Your task to perform on an android device: install app "Microsoft Outlook" Image 0: 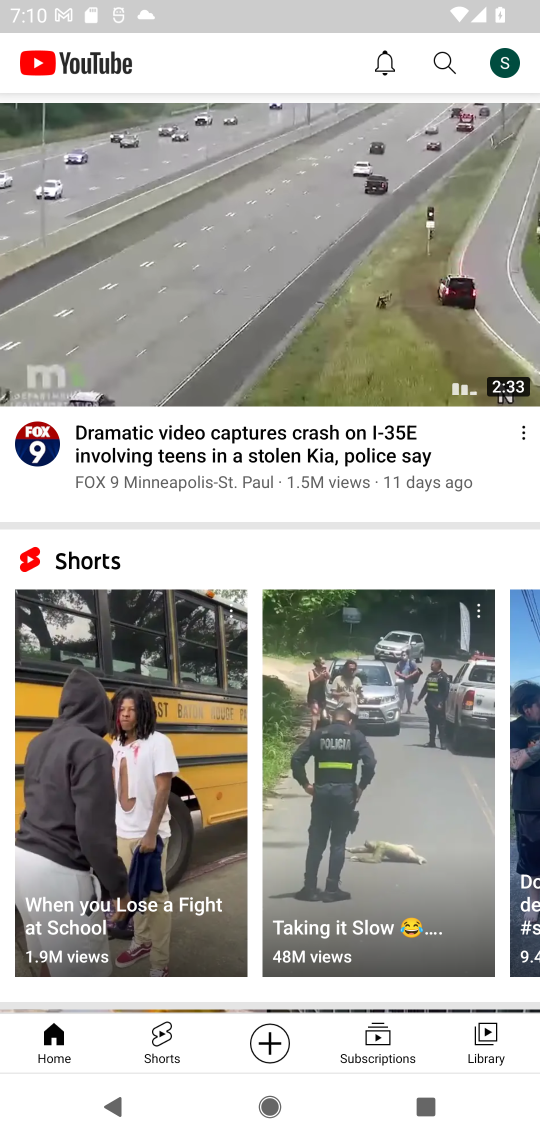
Step 0: press home button
Your task to perform on an android device: install app "Microsoft Outlook" Image 1: 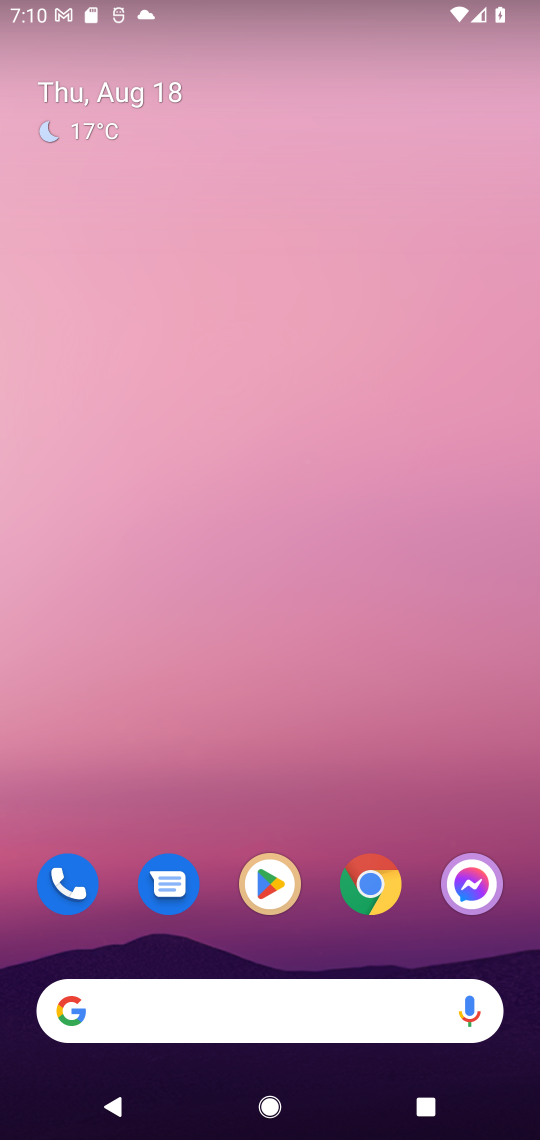
Step 1: drag from (236, 1013) to (387, 34)
Your task to perform on an android device: install app "Microsoft Outlook" Image 2: 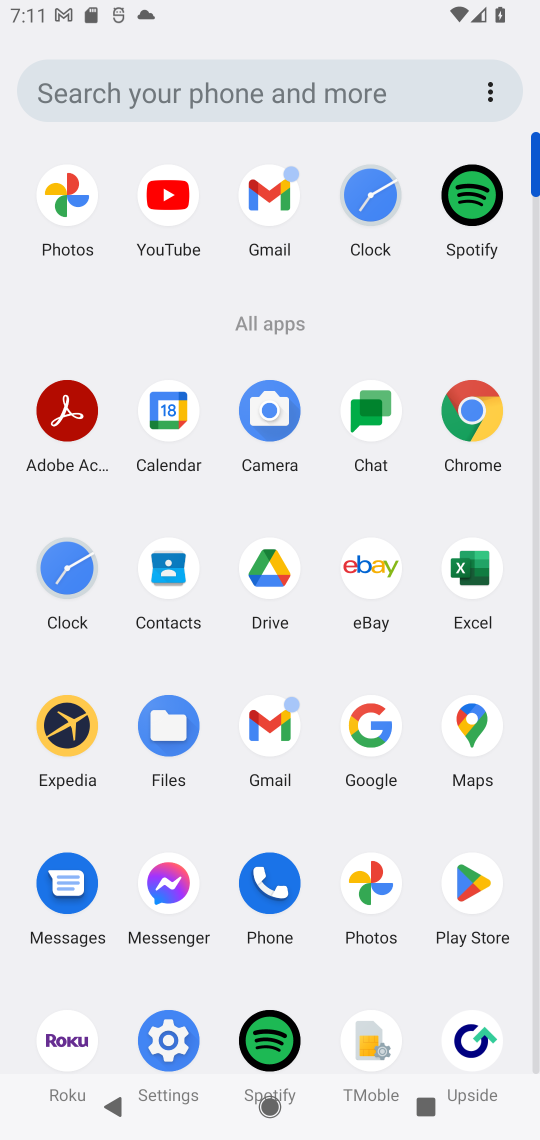
Step 2: click (478, 883)
Your task to perform on an android device: install app "Microsoft Outlook" Image 3: 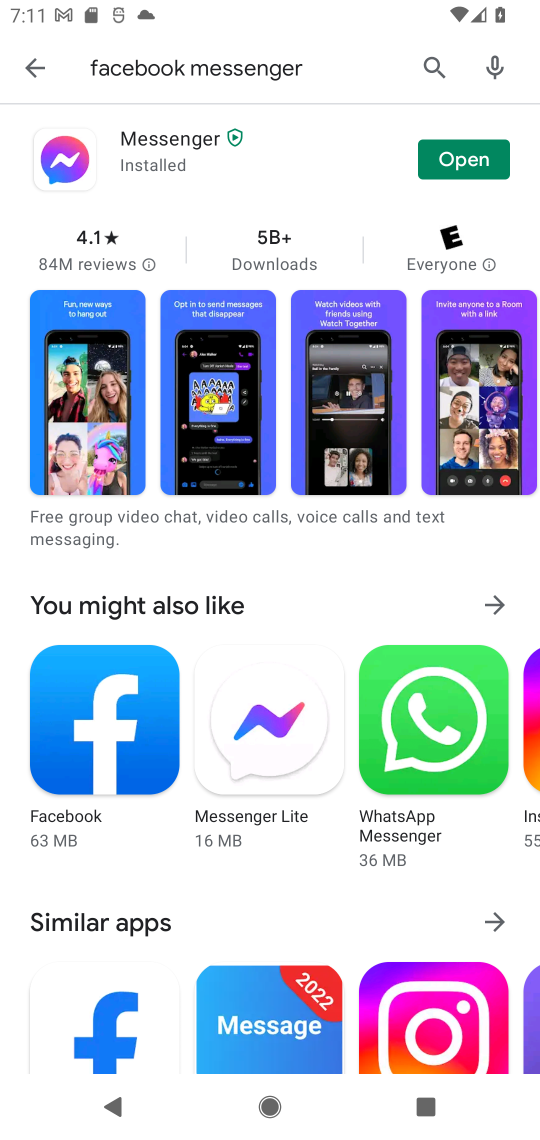
Step 3: press back button
Your task to perform on an android device: install app "Microsoft Outlook" Image 4: 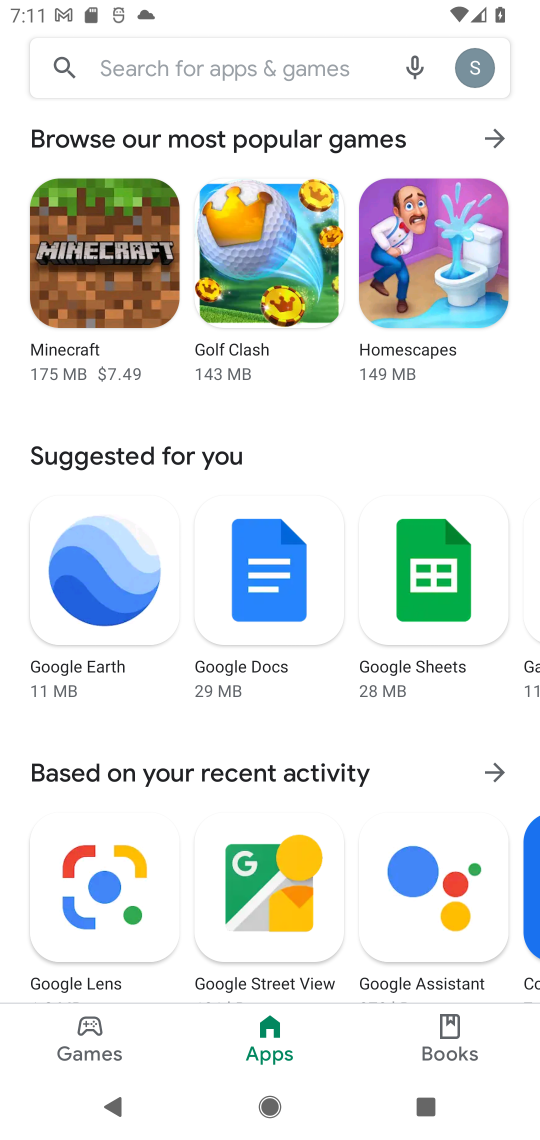
Step 4: click (307, 65)
Your task to perform on an android device: install app "Microsoft Outlook" Image 5: 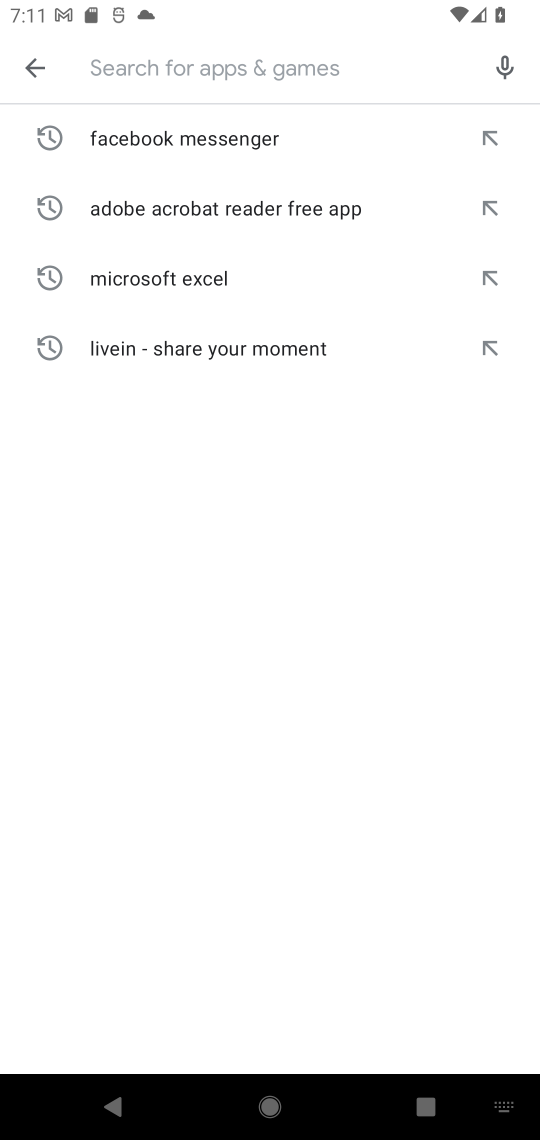
Step 5: type "Microsoft Outlook"
Your task to perform on an android device: install app "Microsoft Outlook" Image 6: 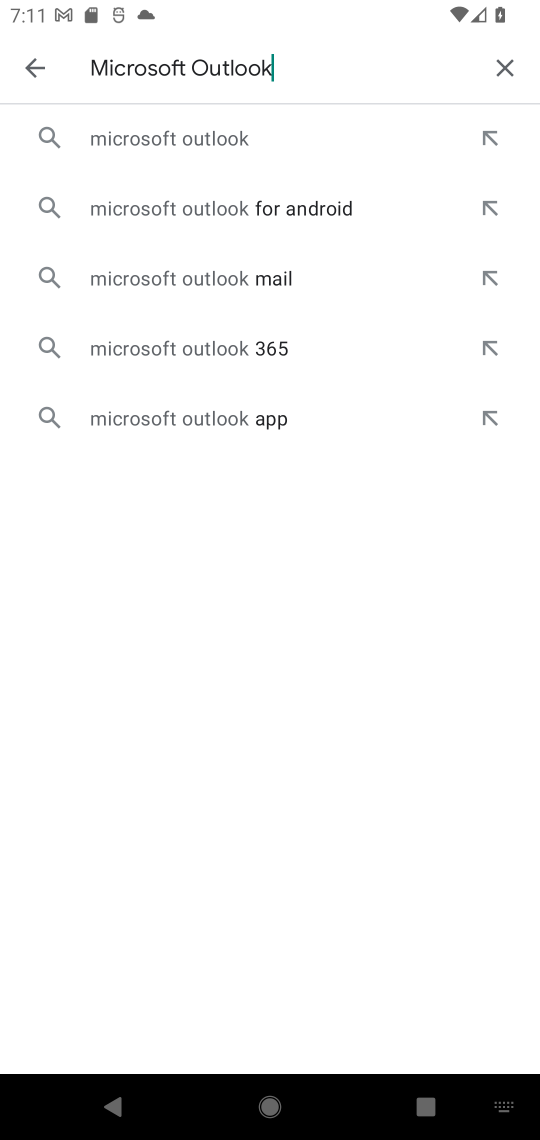
Step 6: click (213, 141)
Your task to perform on an android device: install app "Microsoft Outlook" Image 7: 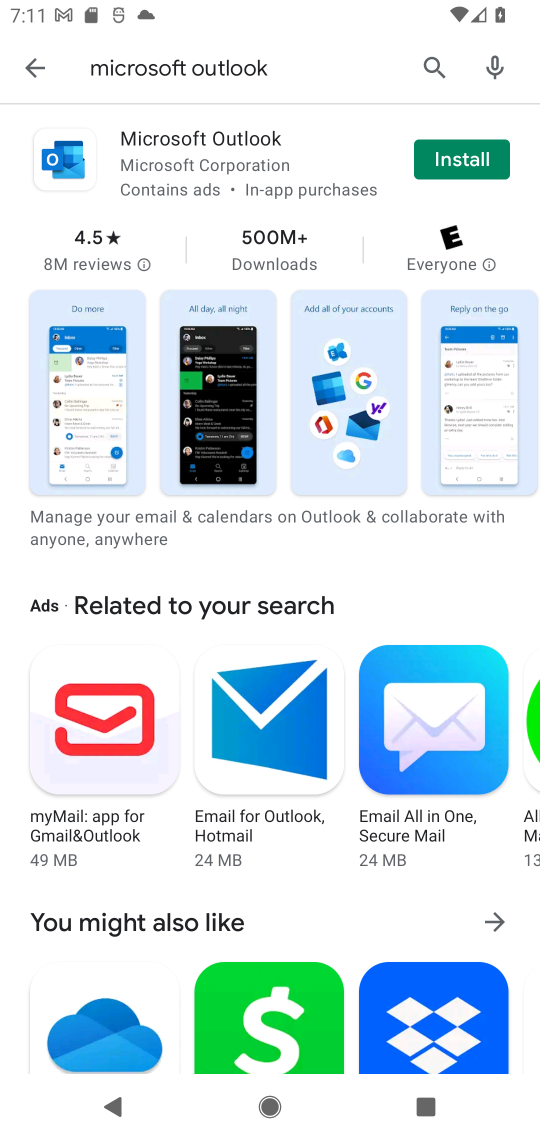
Step 7: click (461, 164)
Your task to perform on an android device: install app "Microsoft Outlook" Image 8: 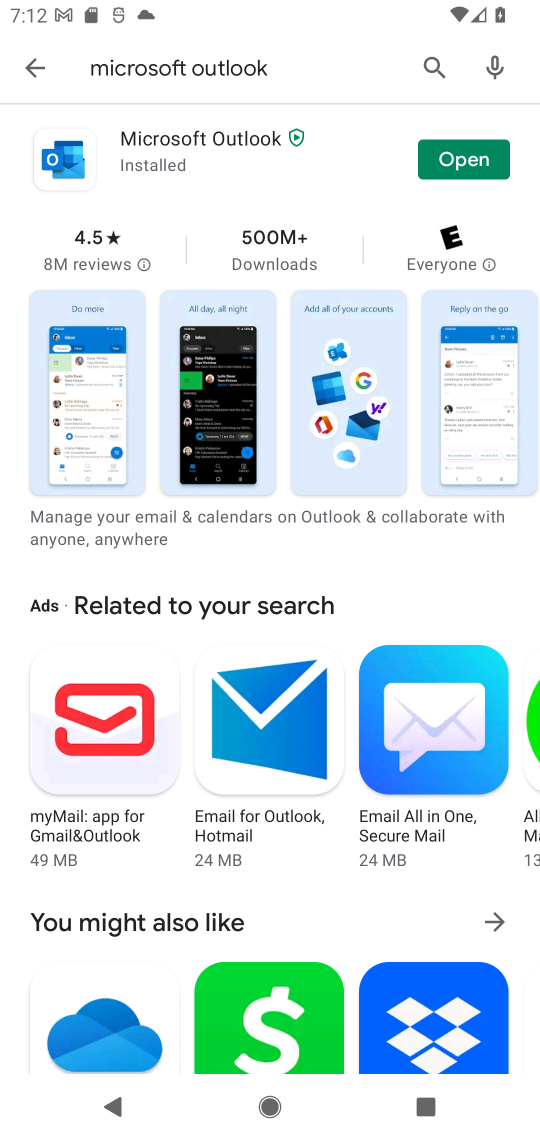
Step 8: task complete